Your task to perform on an android device: open sync settings in chrome Image 0: 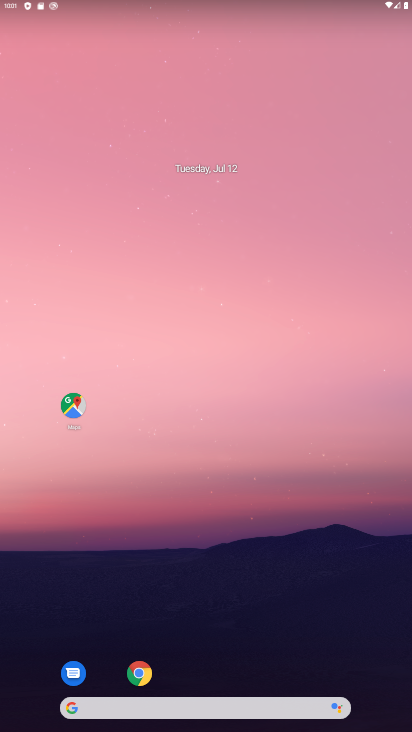
Step 0: click (142, 672)
Your task to perform on an android device: open sync settings in chrome Image 1: 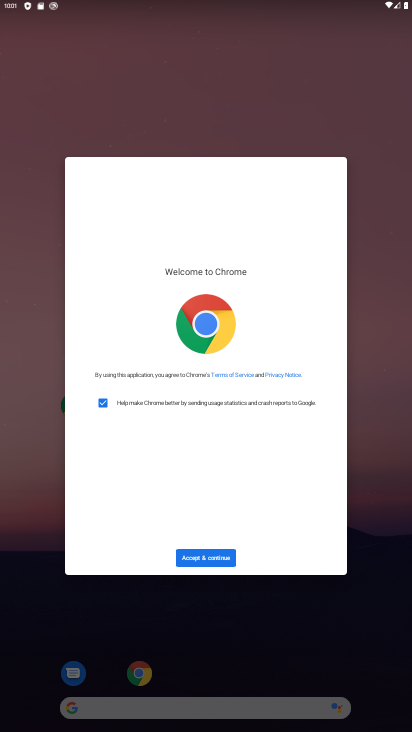
Step 1: click (205, 556)
Your task to perform on an android device: open sync settings in chrome Image 2: 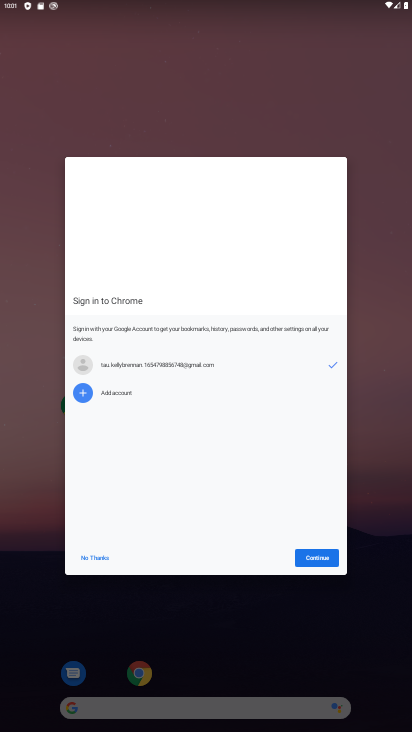
Step 2: click (314, 556)
Your task to perform on an android device: open sync settings in chrome Image 3: 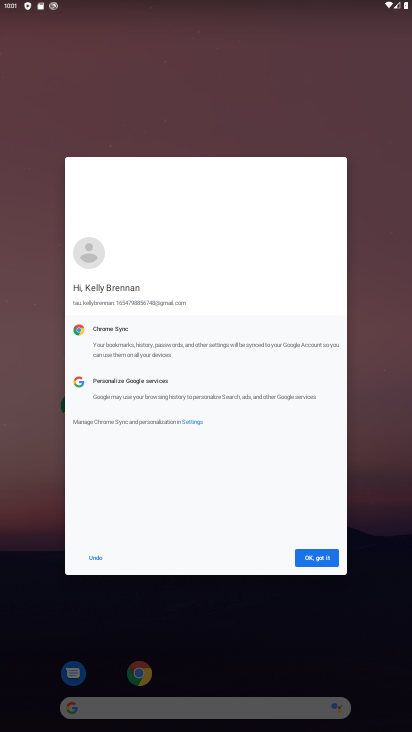
Step 3: click (314, 556)
Your task to perform on an android device: open sync settings in chrome Image 4: 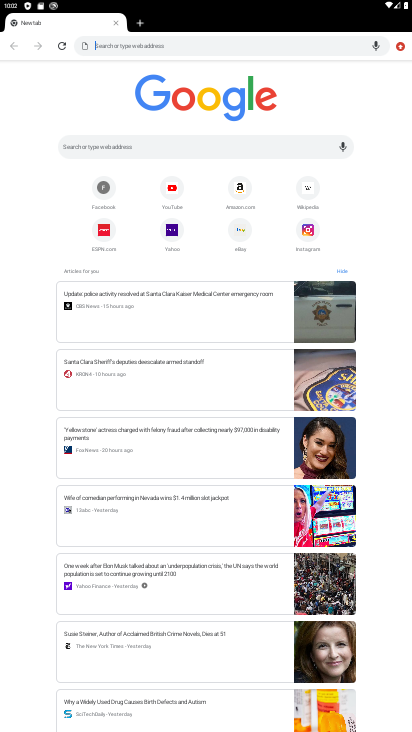
Step 4: click (405, 46)
Your task to perform on an android device: open sync settings in chrome Image 5: 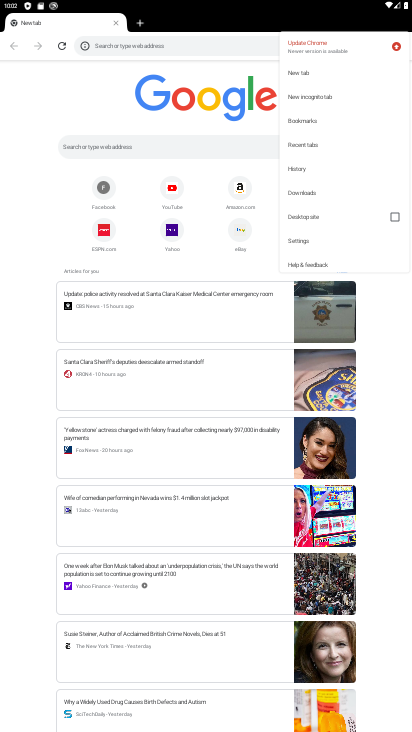
Step 5: click (325, 236)
Your task to perform on an android device: open sync settings in chrome Image 6: 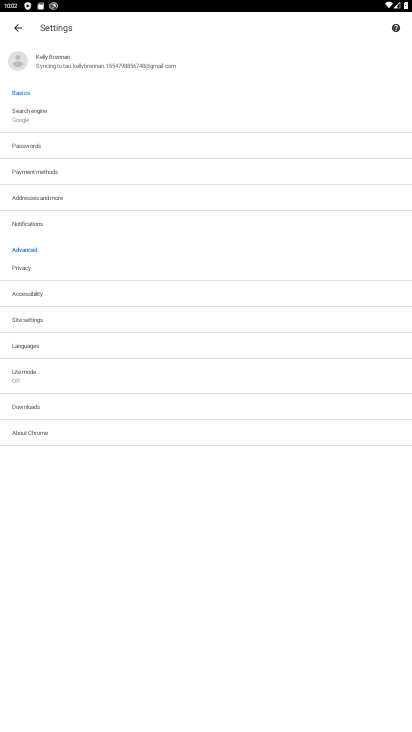
Step 6: click (115, 67)
Your task to perform on an android device: open sync settings in chrome Image 7: 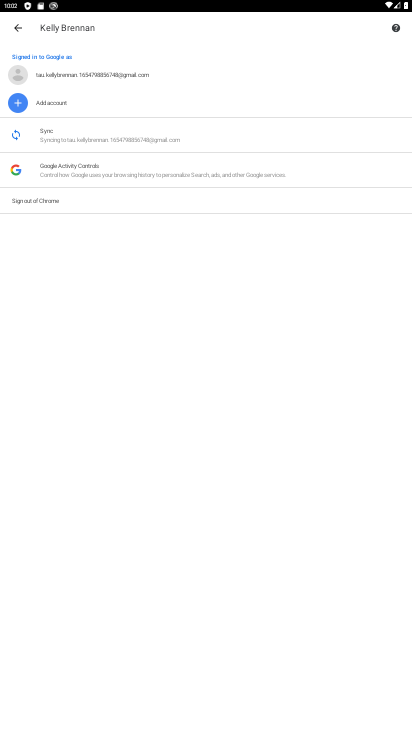
Step 7: click (74, 134)
Your task to perform on an android device: open sync settings in chrome Image 8: 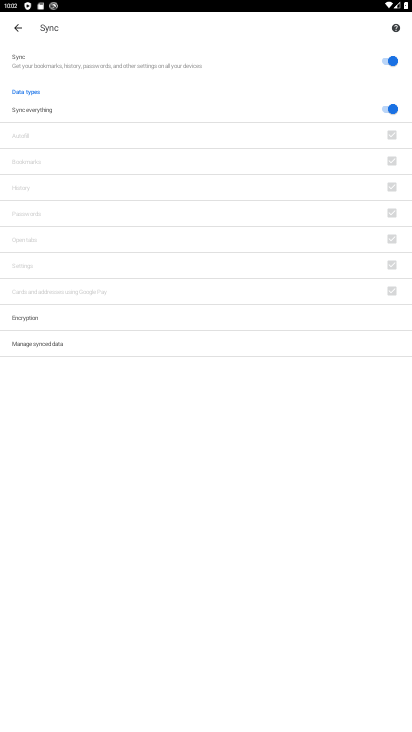
Step 8: task complete